Your task to perform on an android device: uninstall "Microsoft Outlook" Image 0: 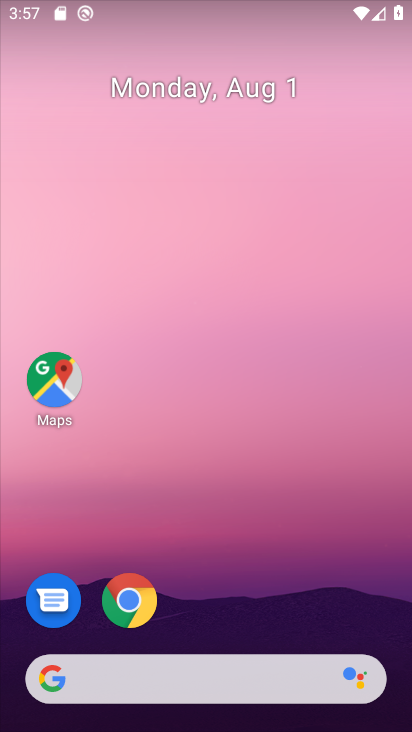
Step 0: drag from (291, 596) to (310, 30)
Your task to perform on an android device: uninstall "Microsoft Outlook" Image 1: 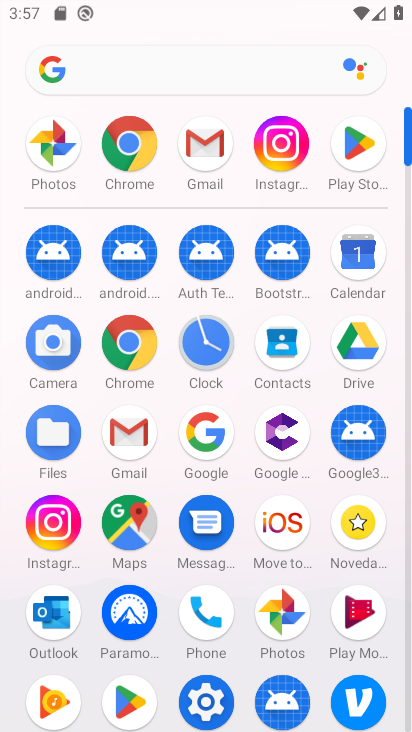
Step 1: click (363, 154)
Your task to perform on an android device: uninstall "Microsoft Outlook" Image 2: 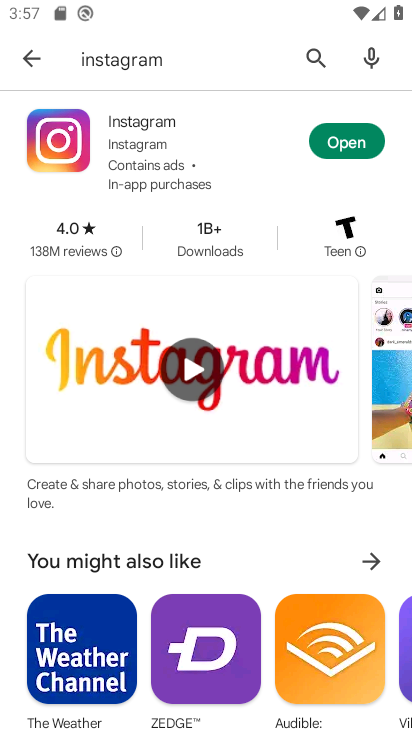
Step 2: click (249, 53)
Your task to perform on an android device: uninstall "Microsoft Outlook" Image 3: 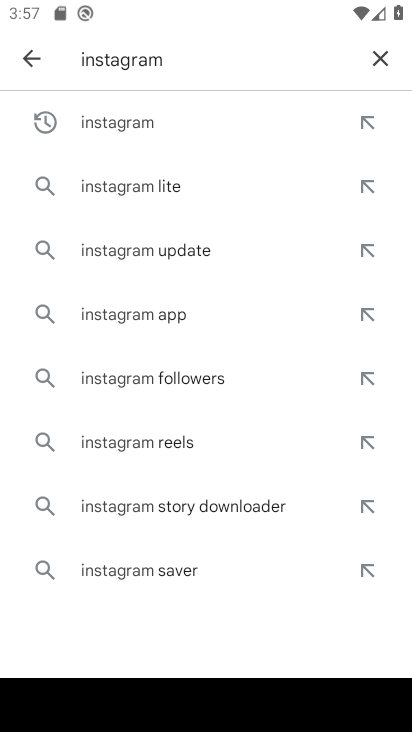
Step 3: click (382, 58)
Your task to perform on an android device: uninstall "Microsoft Outlook" Image 4: 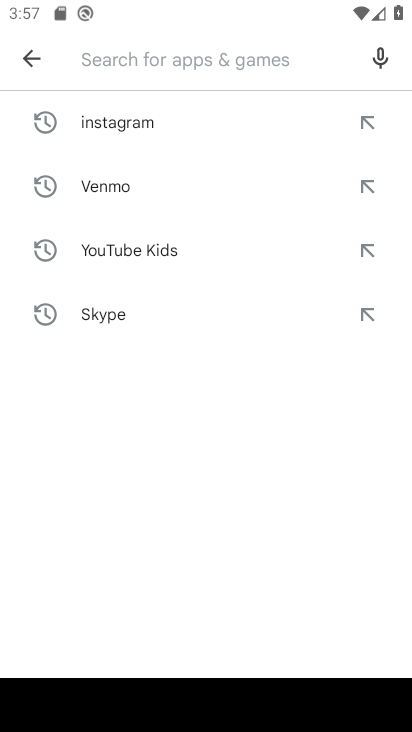
Step 4: type "Microsoft Outlook"
Your task to perform on an android device: uninstall "Microsoft Outlook" Image 5: 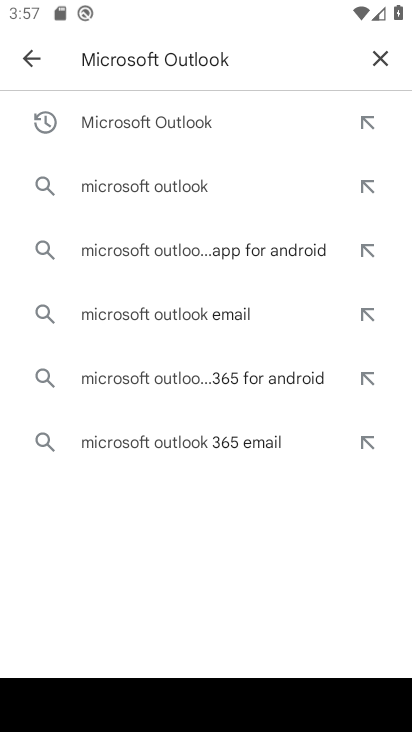
Step 5: press enter
Your task to perform on an android device: uninstall "Microsoft Outlook" Image 6: 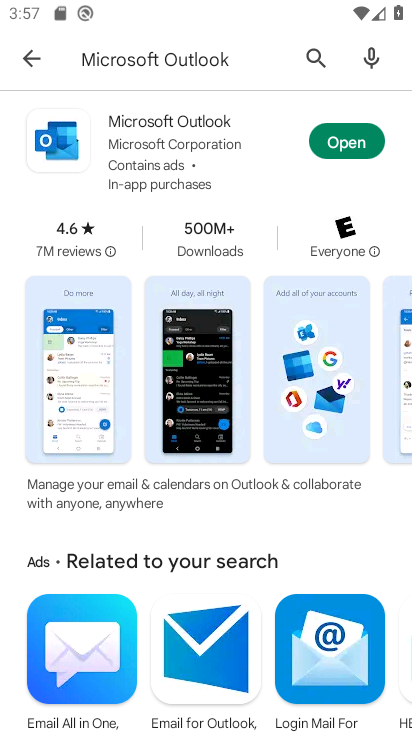
Step 6: click (250, 85)
Your task to perform on an android device: uninstall "Microsoft Outlook" Image 7: 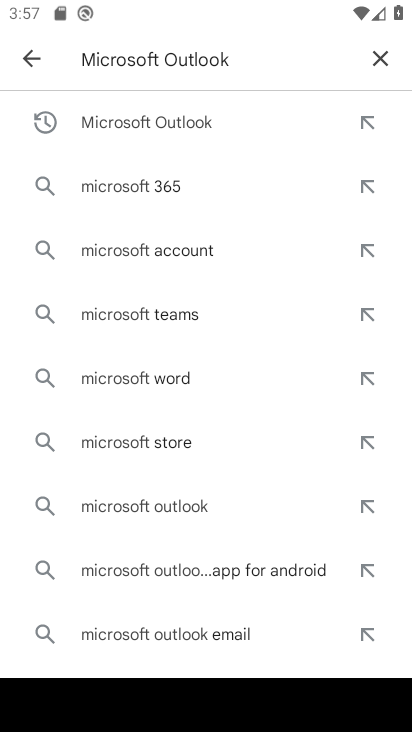
Step 7: click (32, 54)
Your task to perform on an android device: uninstall "Microsoft Outlook" Image 8: 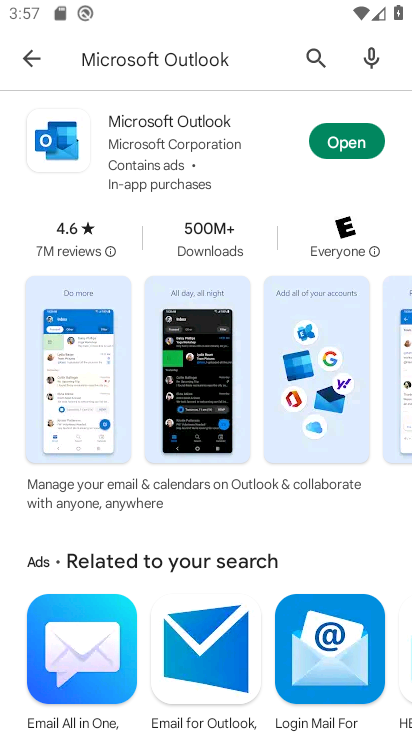
Step 8: click (136, 135)
Your task to perform on an android device: uninstall "Microsoft Outlook" Image 9: 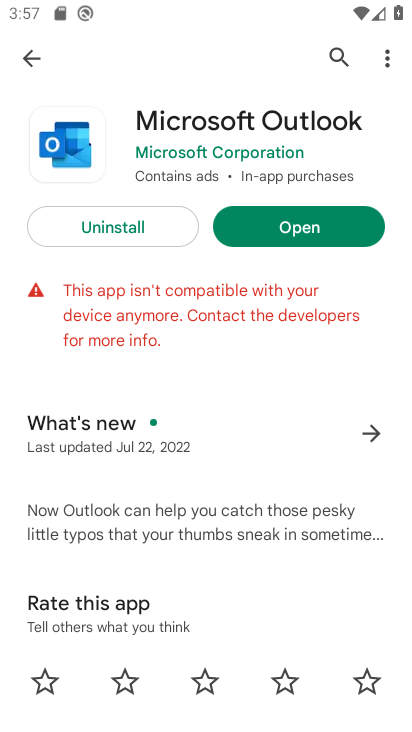
Step 9: click (100, 232)
Your task to perform on an android device: uninstall "Microsoft Outlook" Image 10: 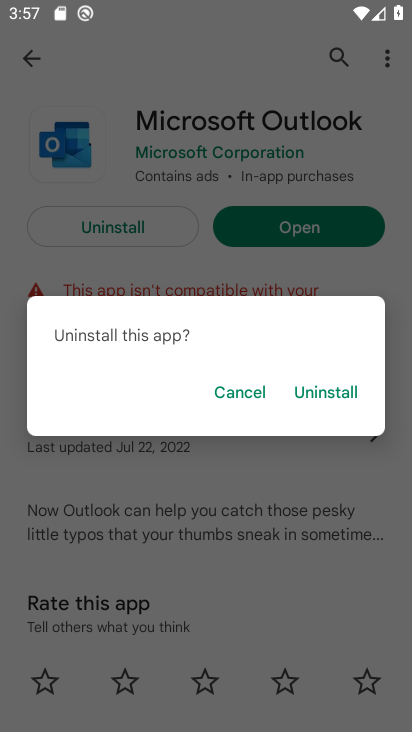
Step 10: click (335, 398)
Your task to perform on an android device: uninstall "Microsoft Outlook" Image 11: 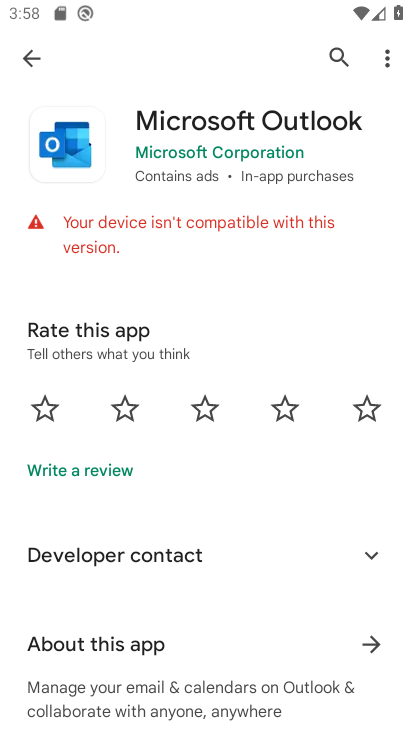
Step 11: task complete